Your task to perform on an android device: delete the emails in spam in the gmail app Image 0: 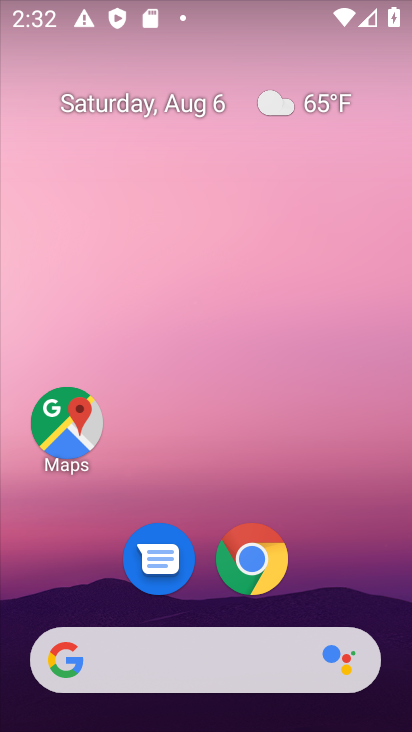
Step 0: drag from (209, 540) to (178, 137)
Your task to perform on an android device: delete the emails in spam in the gmail app Image 1: 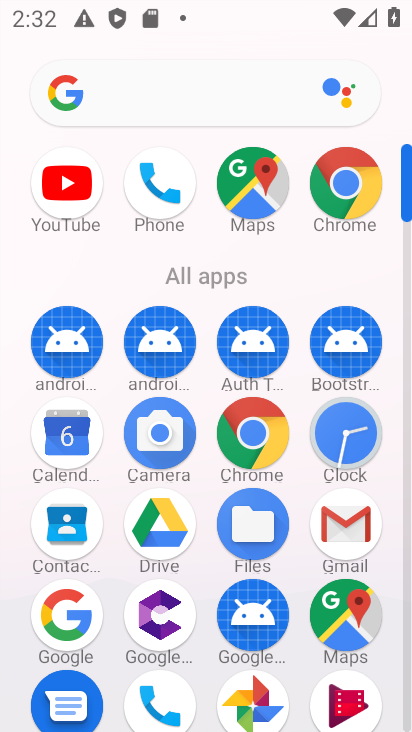
Step 1: click (346, 511)
Your task to perform on an android device: delete the emails in spam in the gmail app Image 2: 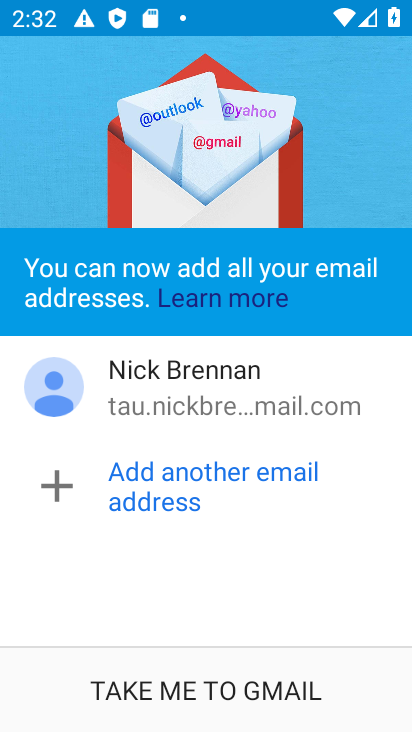
Step 2: click (177, 675)
Your task to perform on an android device: delete the emails in spam in the gmail app Image 3: 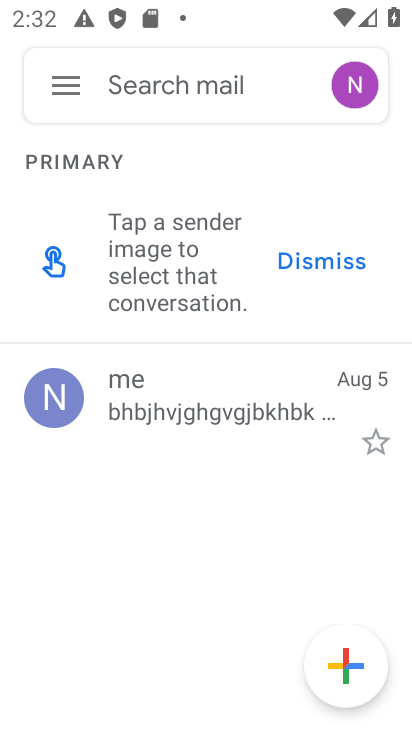
Step 3: click (65, 92)
Your task to perform on an android device: delete the emails in spam in the gmail app Image 4: 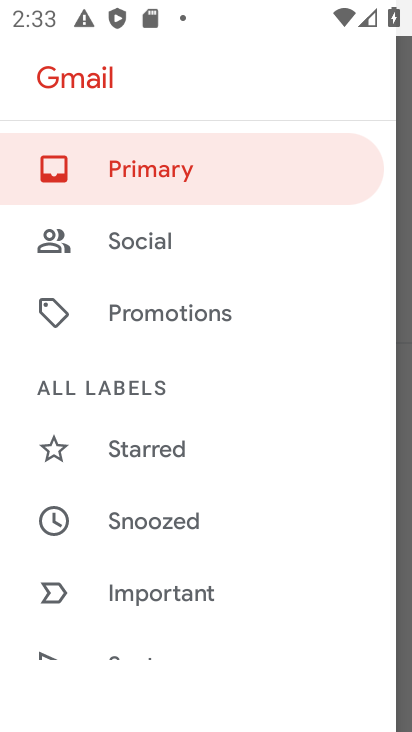
Step 4: click (150, 570)
Your task to perform on an android device: delete the emails in spam in the gmail app Image 5: 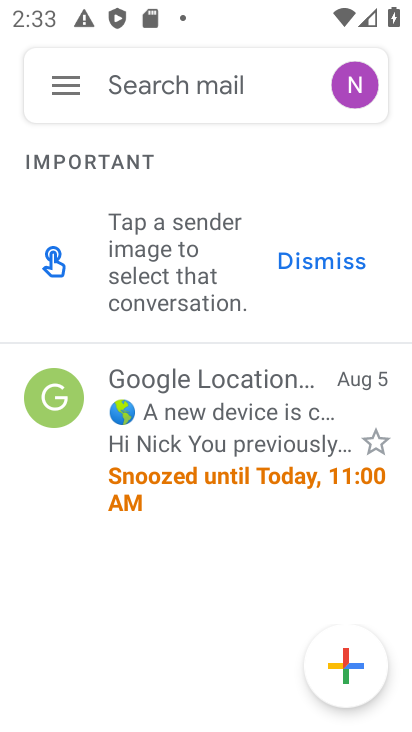
Step 5: click (76, 78)
Your task to perform on an android device: delete the emails in spam in the gmail app Image 6: 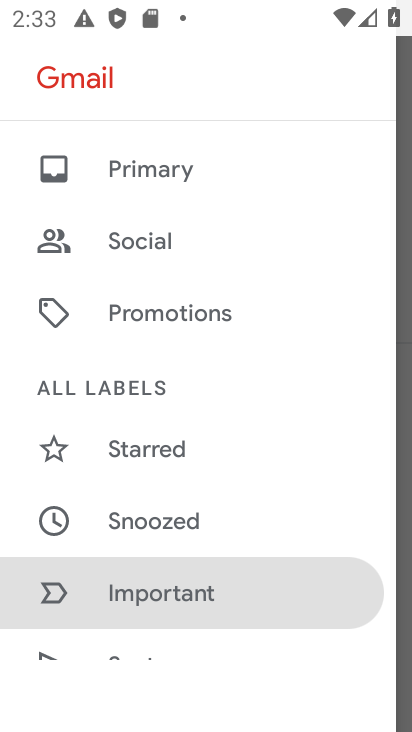
Step 6: drag from (176, 469) to (179, 243)
Your task to perform on an android device: delete the emails in spam in the gmail app Image 7: 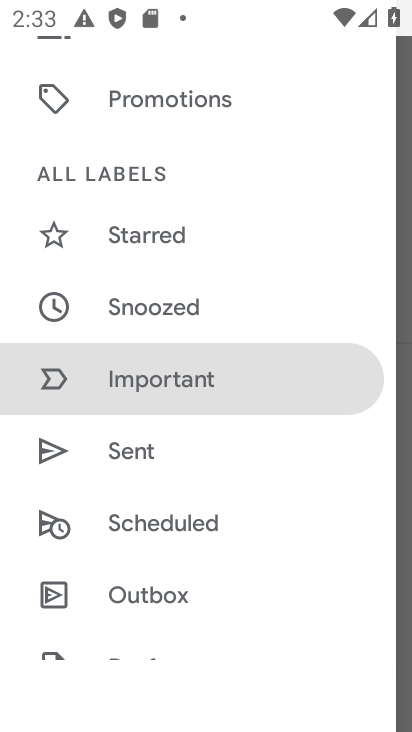
Step 7: drag from (162, 528) to (181, 243)
Your task to perform on an android device: delete the emails in spam in the gmail app Image 8: 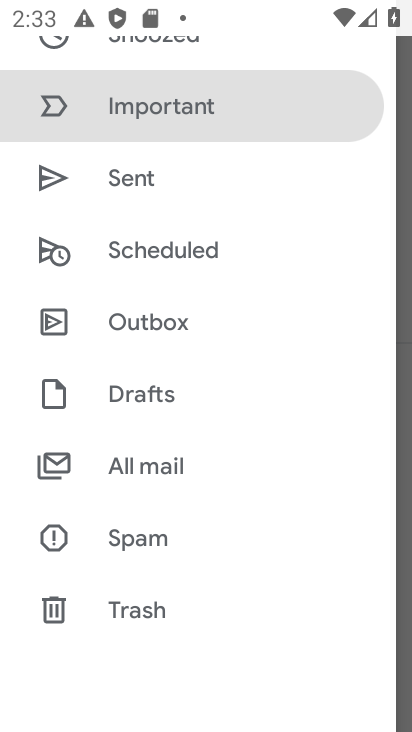
Step 8: click (143, 545)
Your task to perform on an android device: delete the emails in spam in the gmail app Image 9: 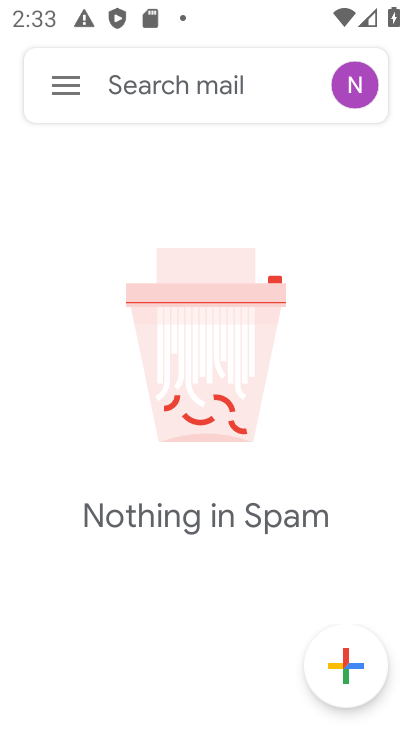
Step 9: task complete